Your task to perform on an android device: Search for sushi restaurants on Maps Image 0: 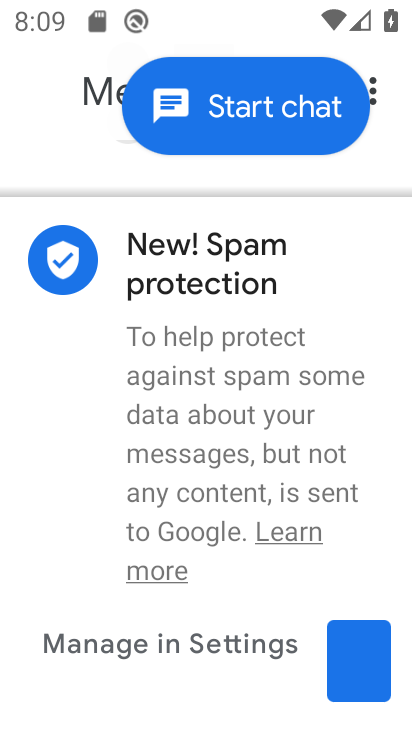
Step 0: press home button
Your task to perform on an android device: Search for sushi restaurants on Maps Image 1: 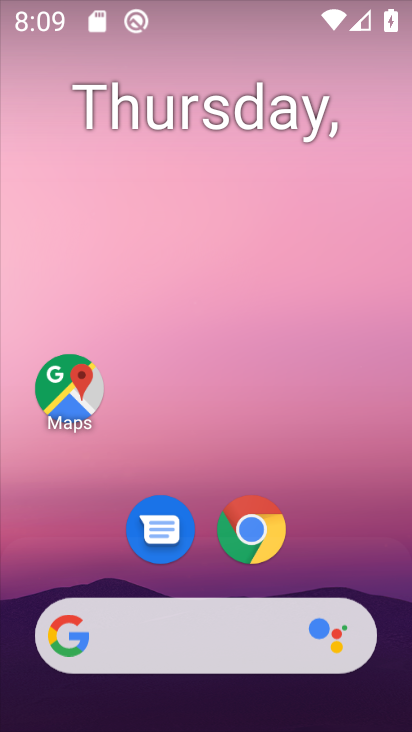
Step 1: drag from (179, 575) to (296, 225)
Your task to perform on an android device: Search for sushi restaurants on Maps Image 2: 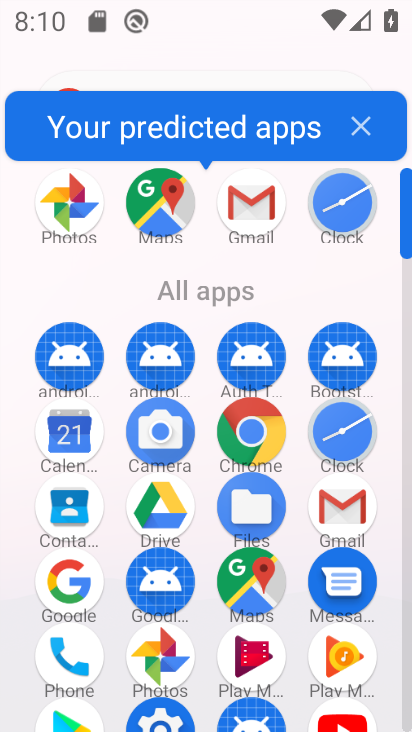
Step 2: click (257, 590)
Your task to perform on an android device: Search for sushi restaurants on Maps Image 3: 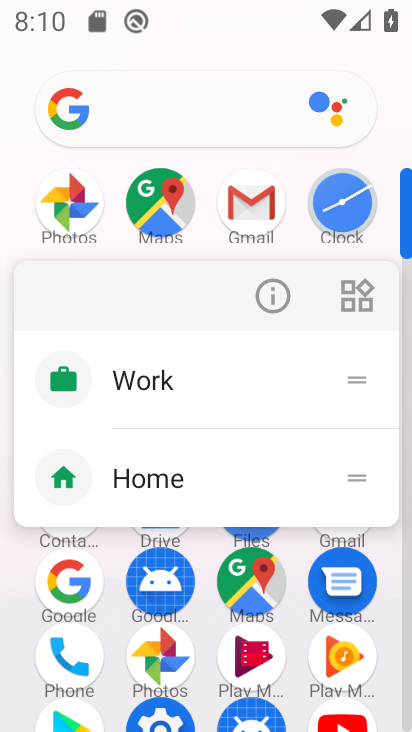
Step 3: click (250, 593)
Your task to perform on an android device: Search for sushi restaurants on Maps Image 4: 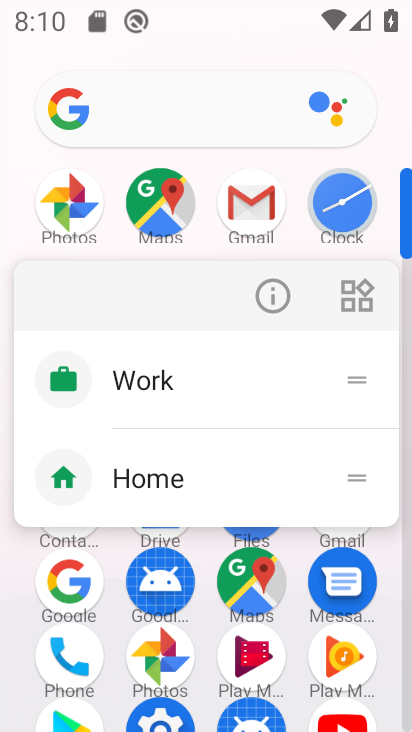
Step 4: click (250, 593)
Your task to perform on an android device: Search for sushi restaurants on Maps Image 5: 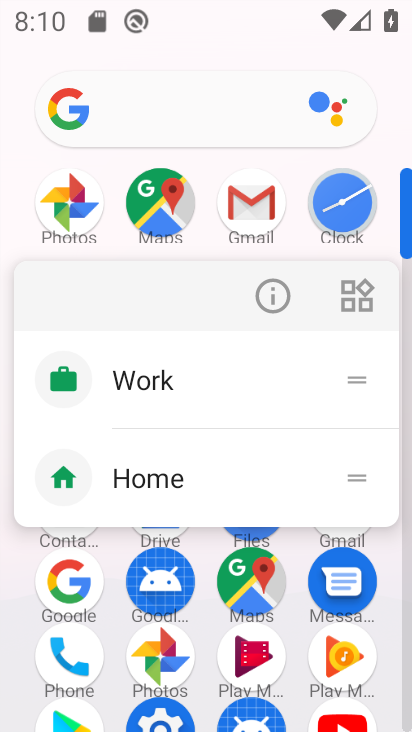
Step 5: click (250, 593)
Your task to perform on an android device: Search for sushi restaurants on Maps Image 6: 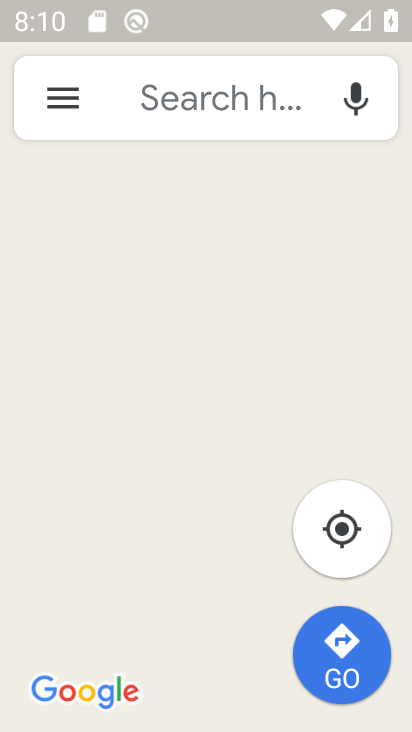
Step 6: click (205, 88)
Your task to perform on an android device: Search for sushi restaurants on Maps Image 7: 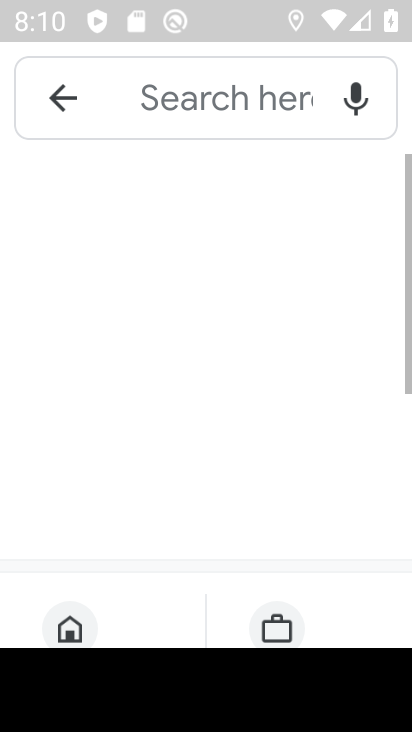
Step 7: type "sushi restaurants"
Your task to perform on an android device: Search for sushi restaurants on Maps Image 8: 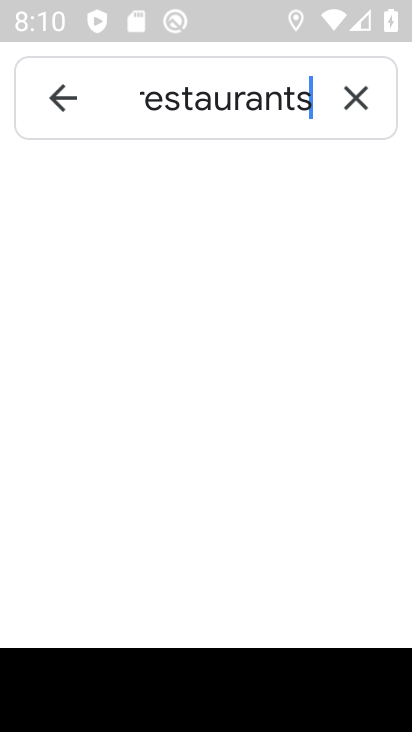
Step 8: click (283, 506)
Your task to perform on an android device: Search for sushi restaurants on Maps Image 9: 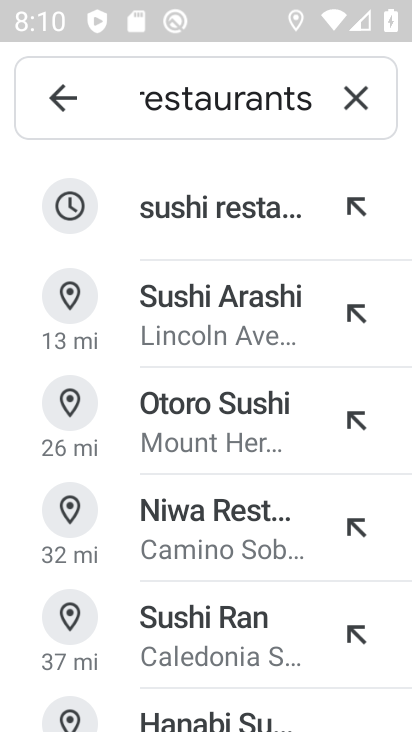
Step 9: click (232, 214)
Your task to perform on an android device: Search for sushi restaurants on Maps Image 10: 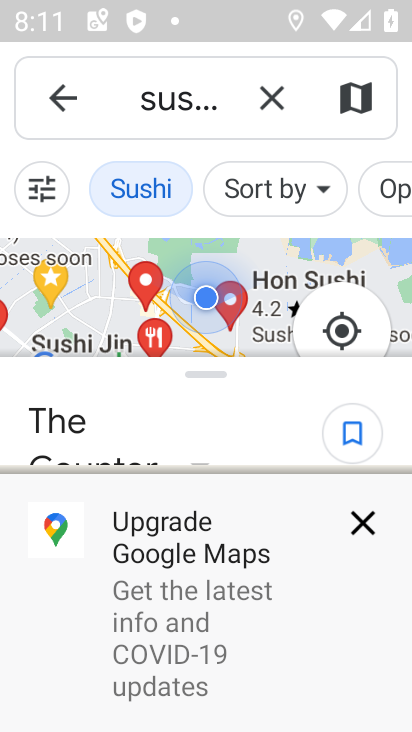
Step 10: click (359, 530)
Your task to perform on an android device: Search for sushi restaurants on Maps Image 11: 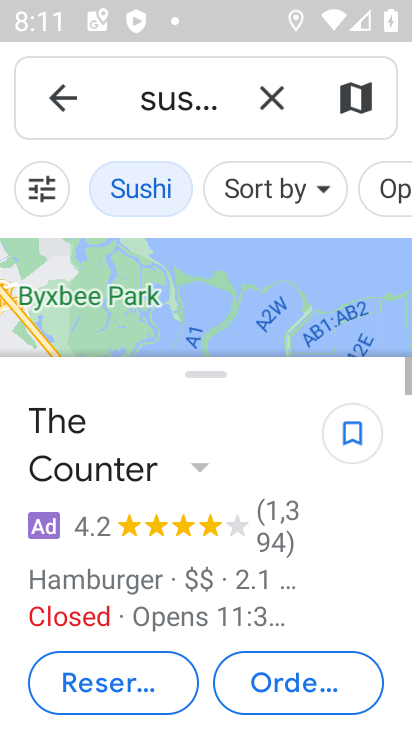
Step 11: task complete